Your task to perform on an android device: Go to Maps Image 0: 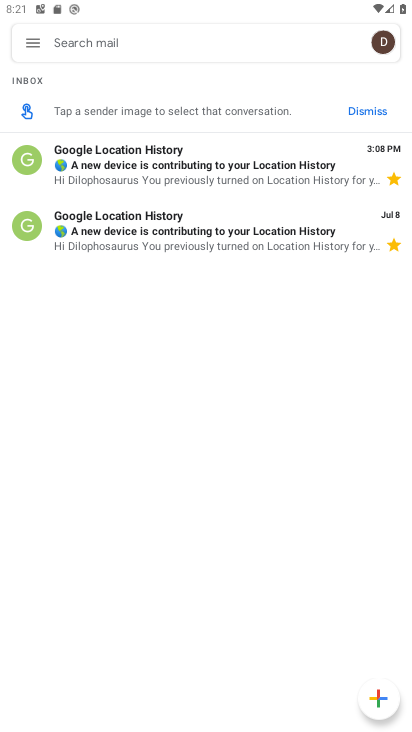
Step 0: press home button
Your task to perform on an android device: Go to Maps Image 1: 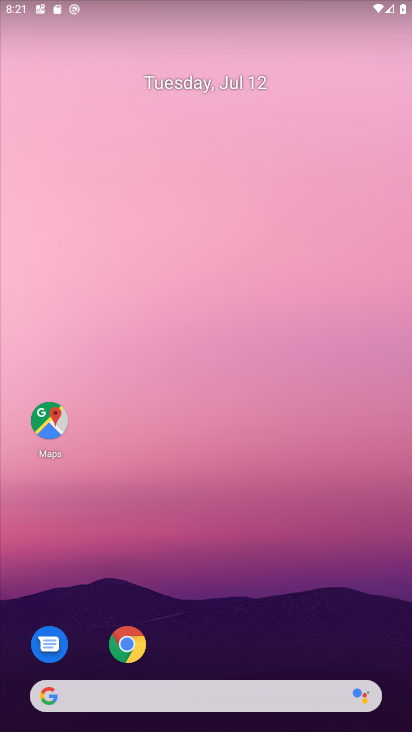
Step 1: drag from (278, 597) to (310, 46)
Your task to perform on an android device: Go to Maps Image 2: 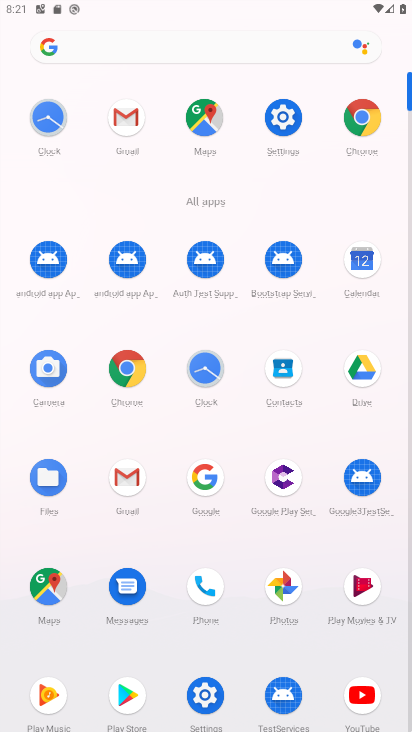
Step 2: click (210, 123)
Your task to perform on an android device: Go to Maps Image 3: 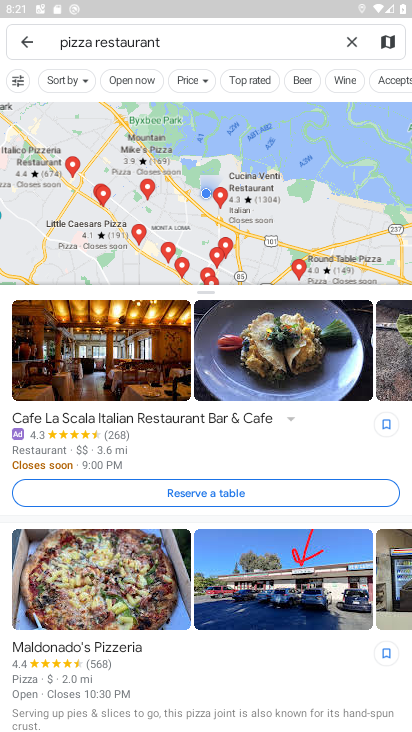
Step 3: task complete